Your task to perform on an android device: Clear the cart on amazon.com. Image 0: 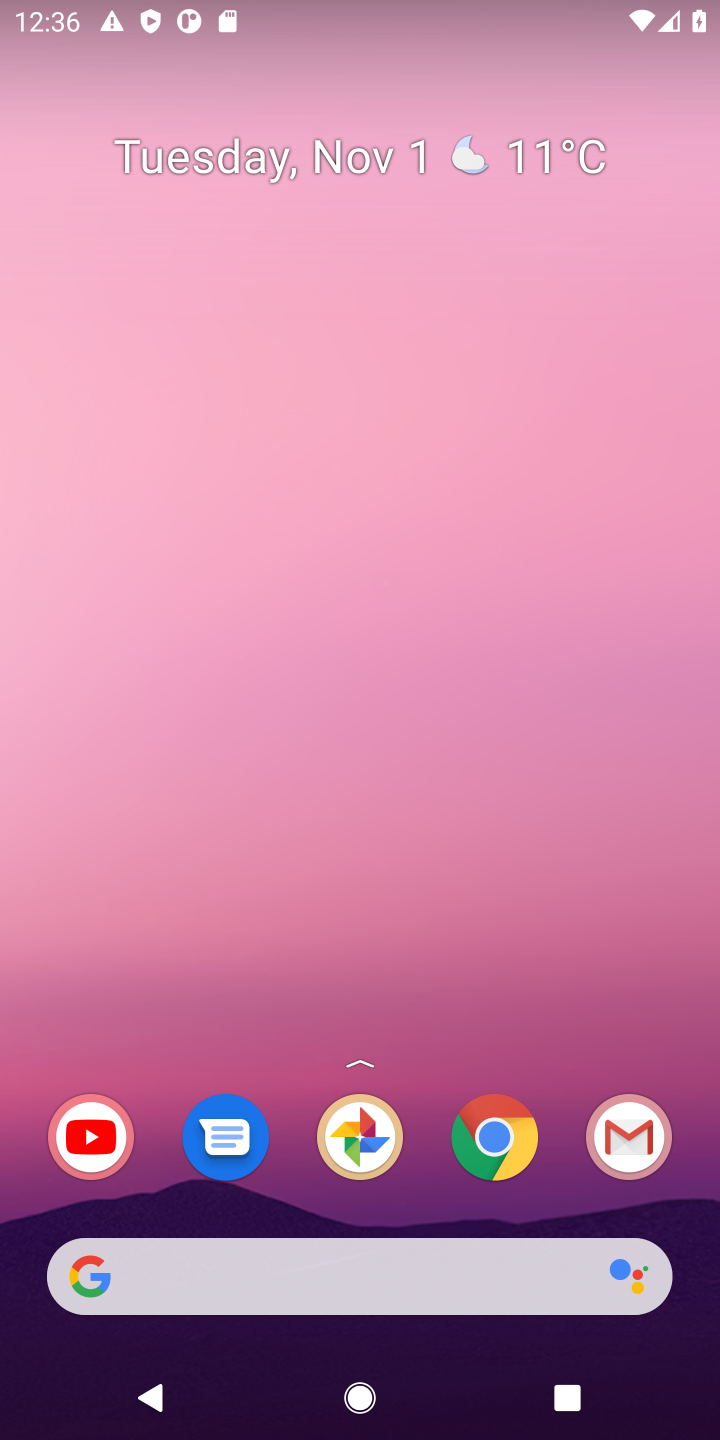
Step 0: click (491, 1151)
Your task to perform on an android device: Clear the cart on amazon.com. Image 1: 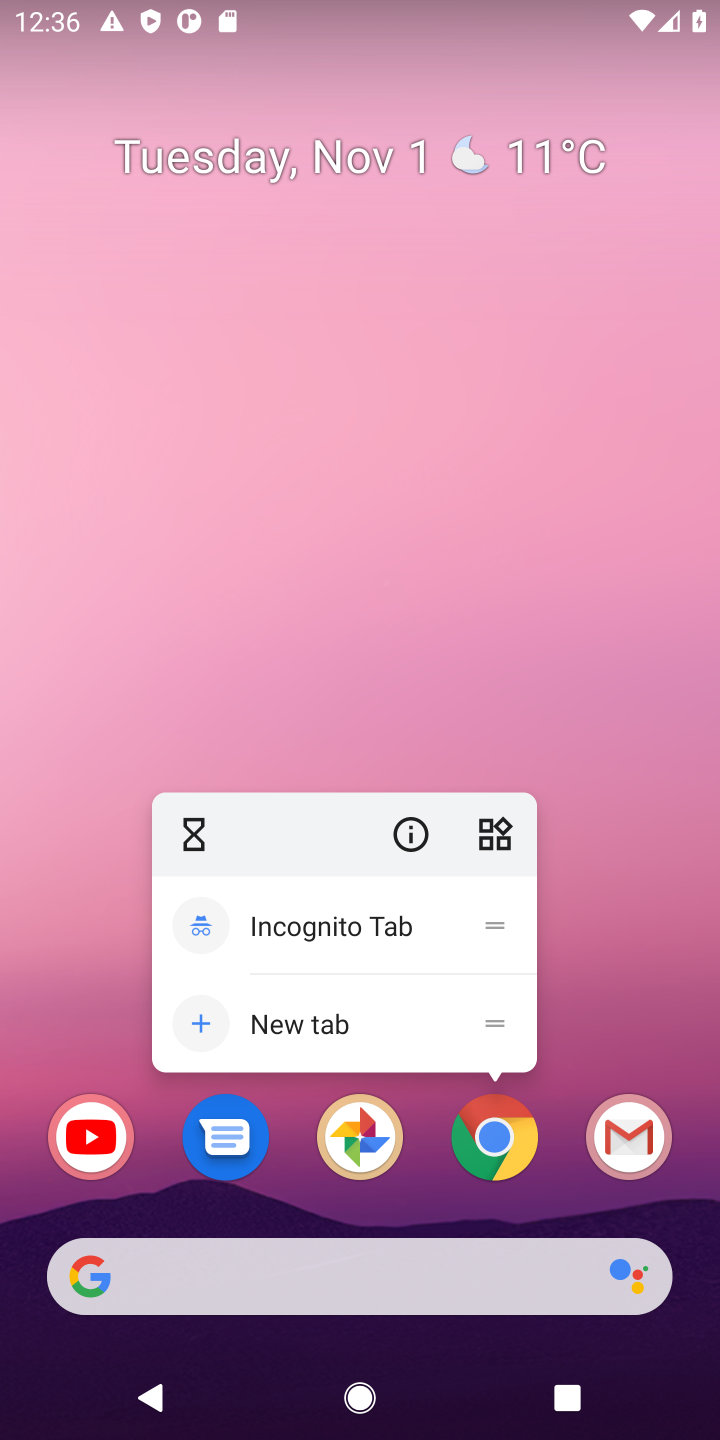
Step 1: click (498, 1120)
Your task to perform on an android device: Clear the cart on amazon.com. Image 2: 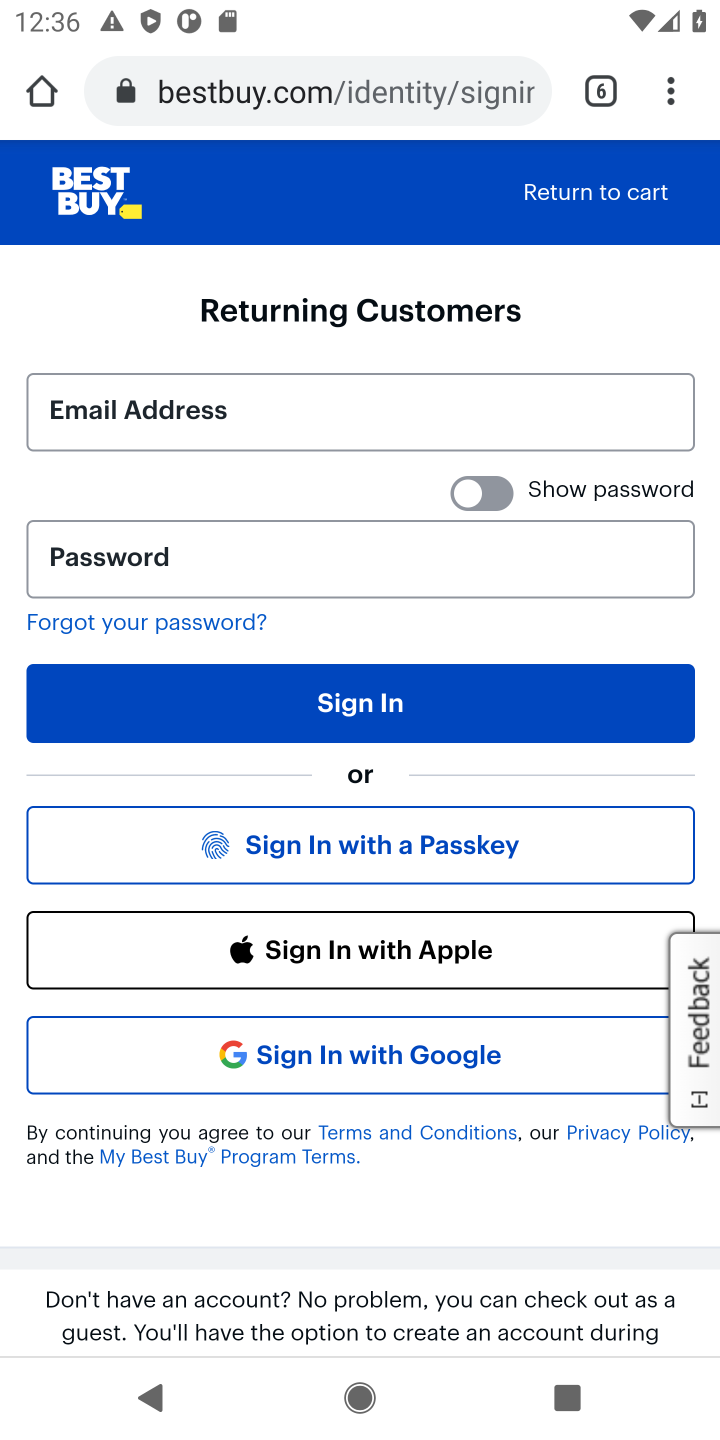
Step 2: click (605, 88)
Your task to perform on an android device: Clear the cart on amazon.com. Image 3: 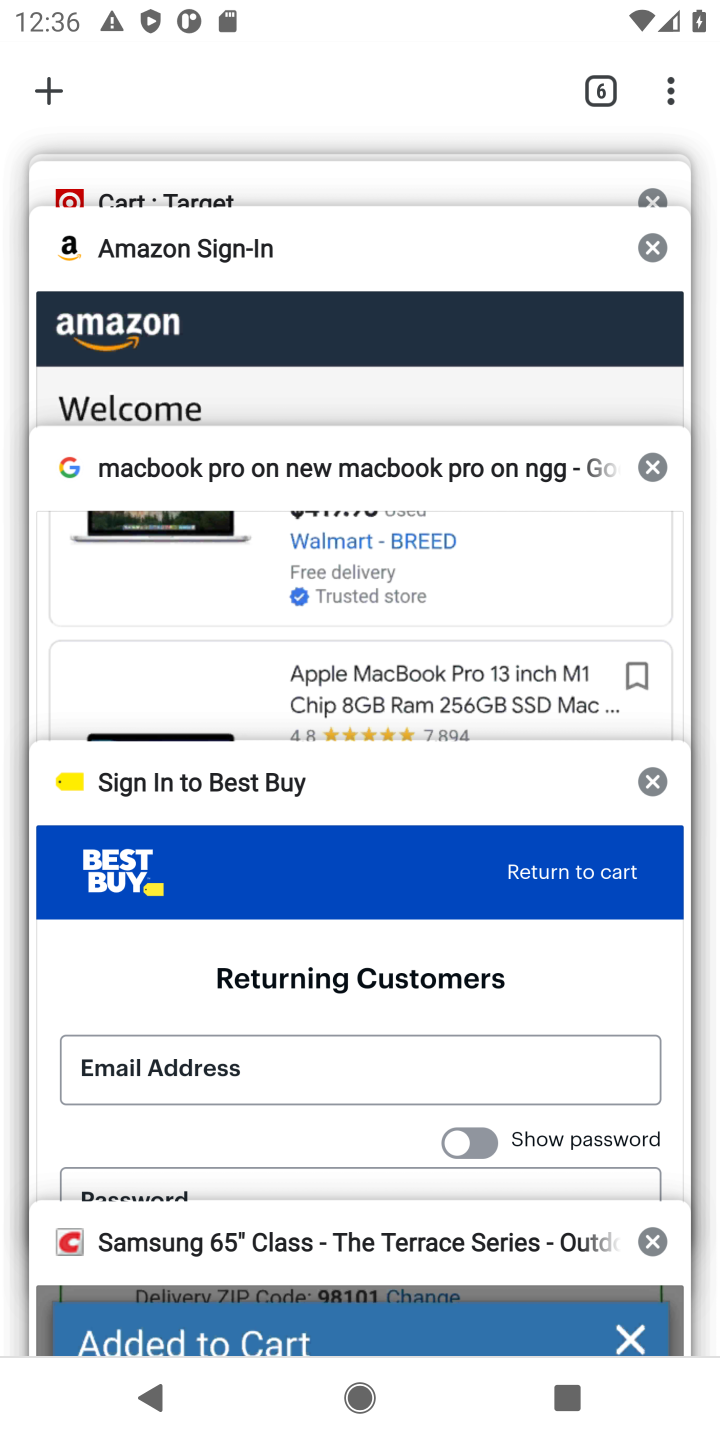
Step 3: click (400, 293)
Your task to perform on an android device: Clear the cart on amazon.com. Image 4: 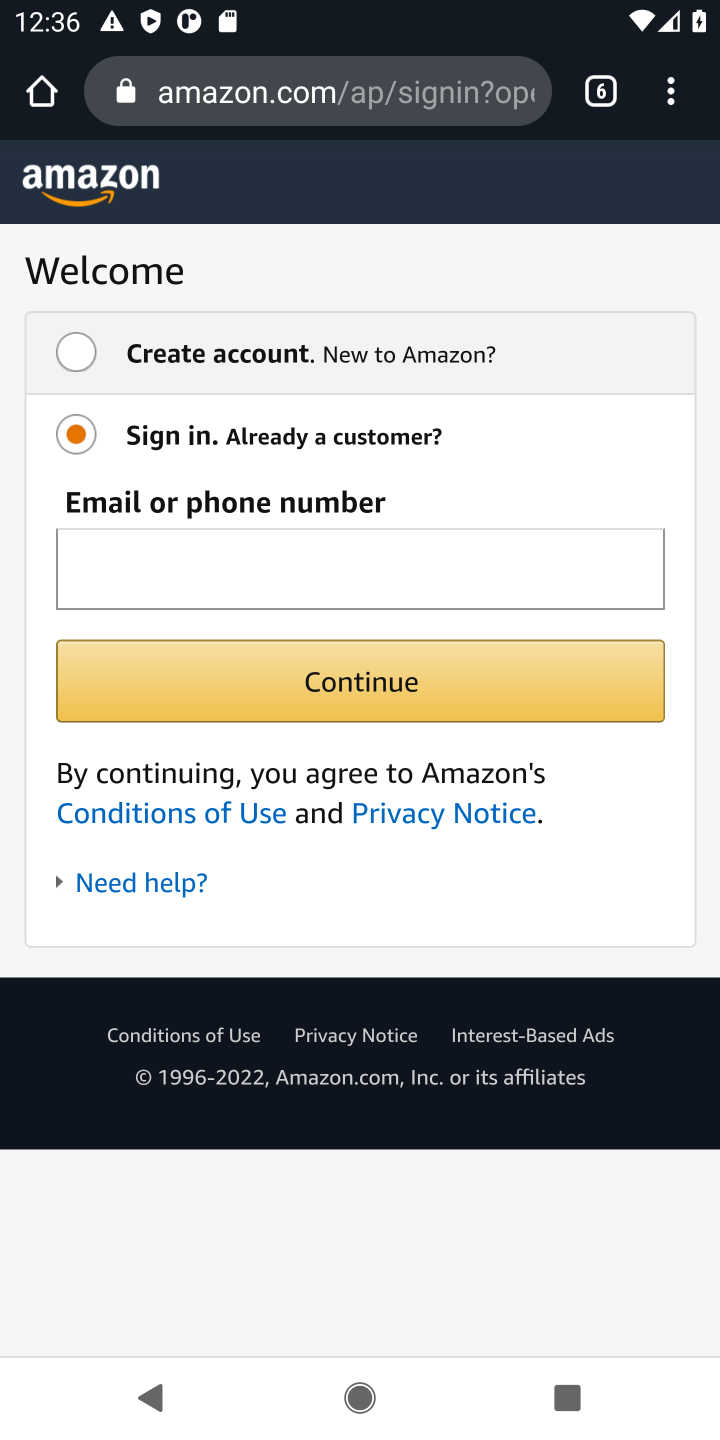
Step 4: press back button
Your task to perform on an android device: Clear the cart on amazon.com. Image 5: 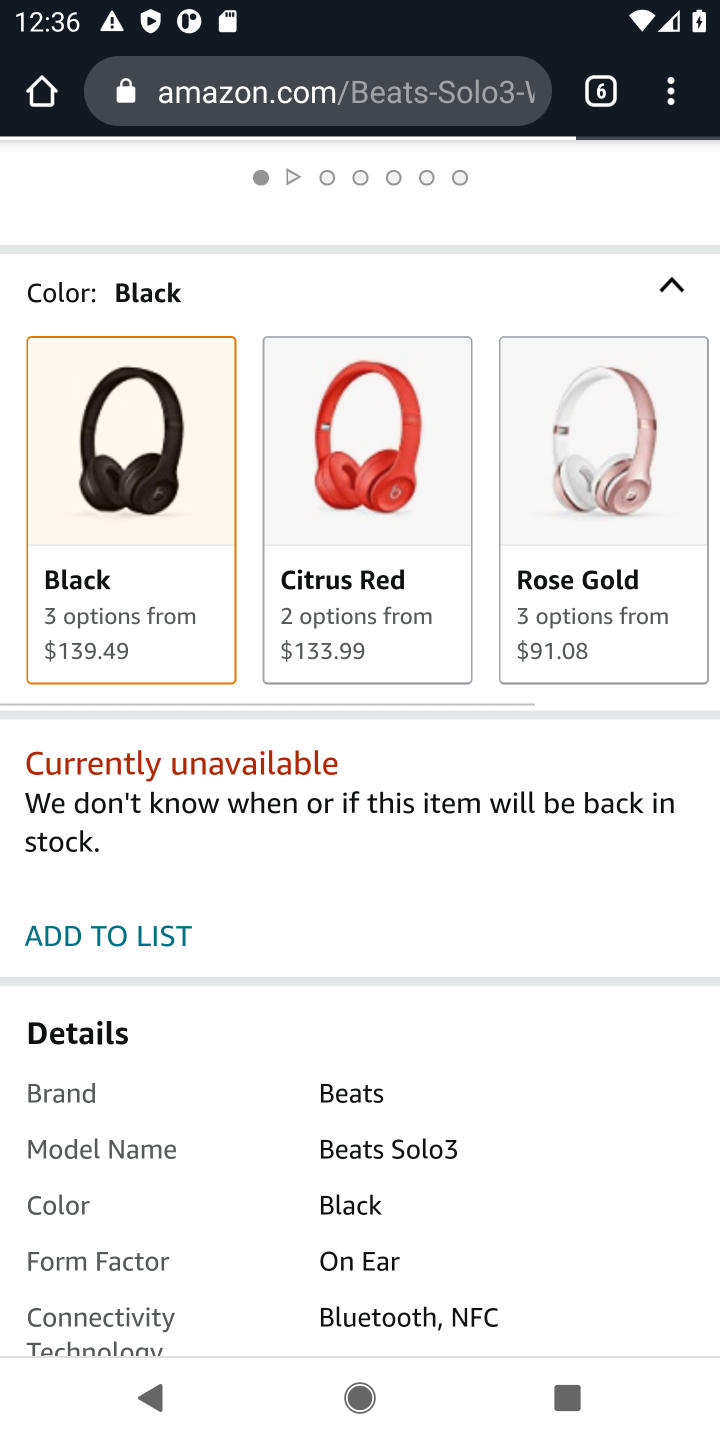
Step 5: click (654, 167)
Your task to perform on an android device: Clear the cart on amazon.com. Image 6: 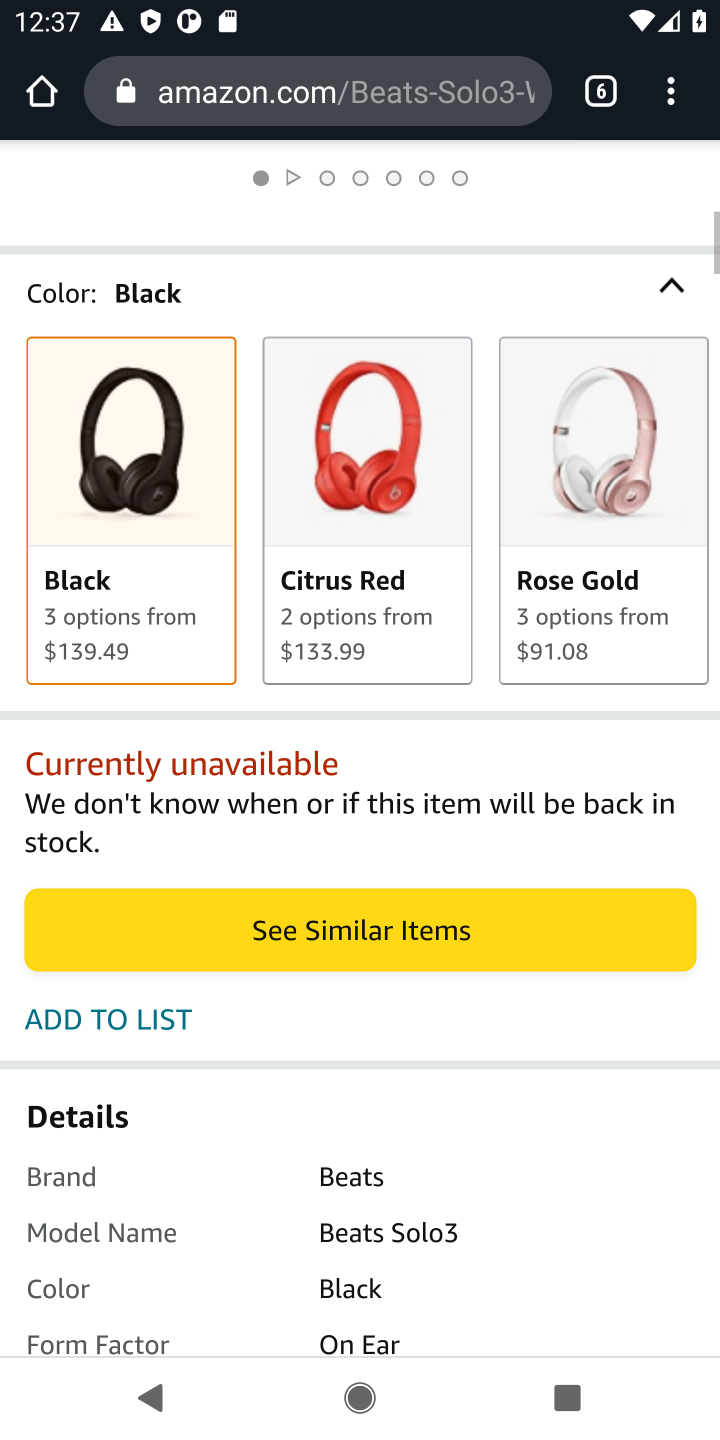
Step 6: drag from (632, 233) to (612, 952)
Your task to perform on an android device: Clear the cart on amazon.com. Image 7: 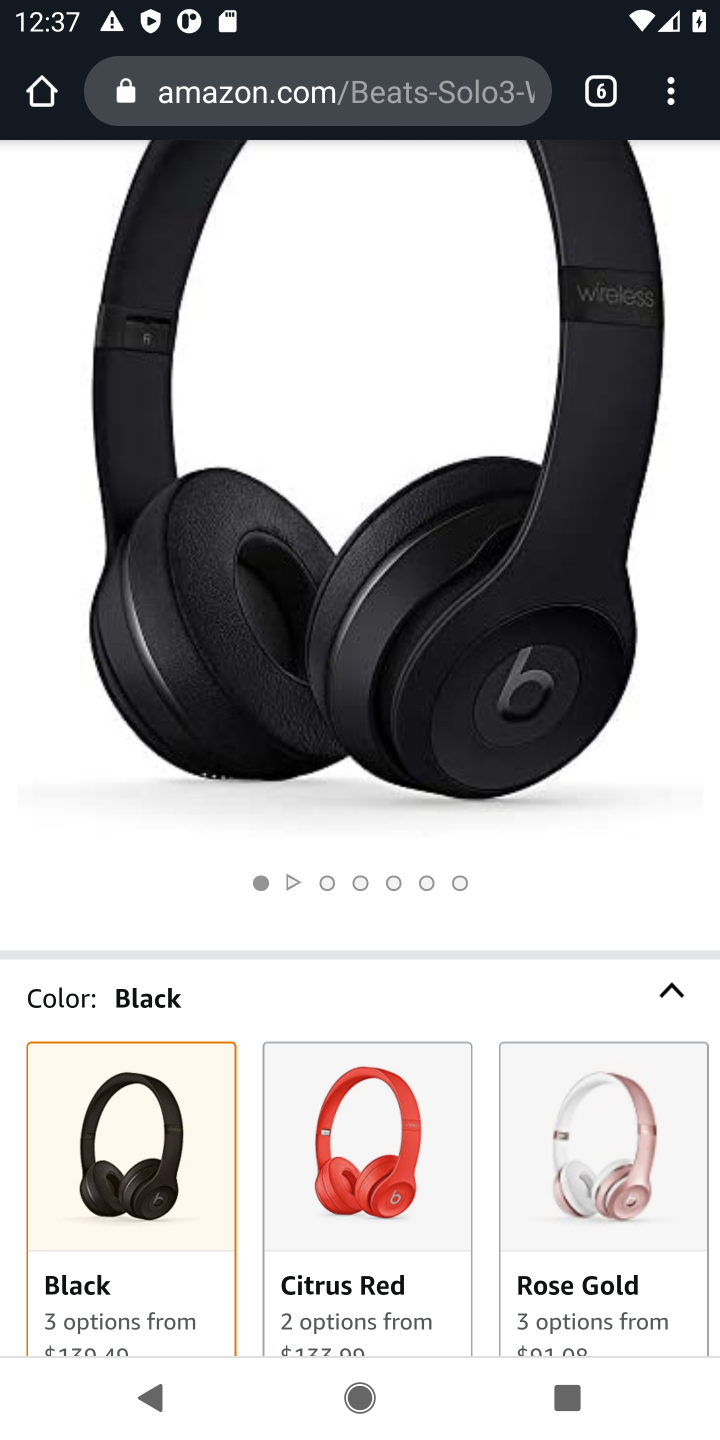
Step 7: drag from (661, 348) to (633, 1424)
Your task to perform on an android device: Clear the cart on amazon.com. Image 8: 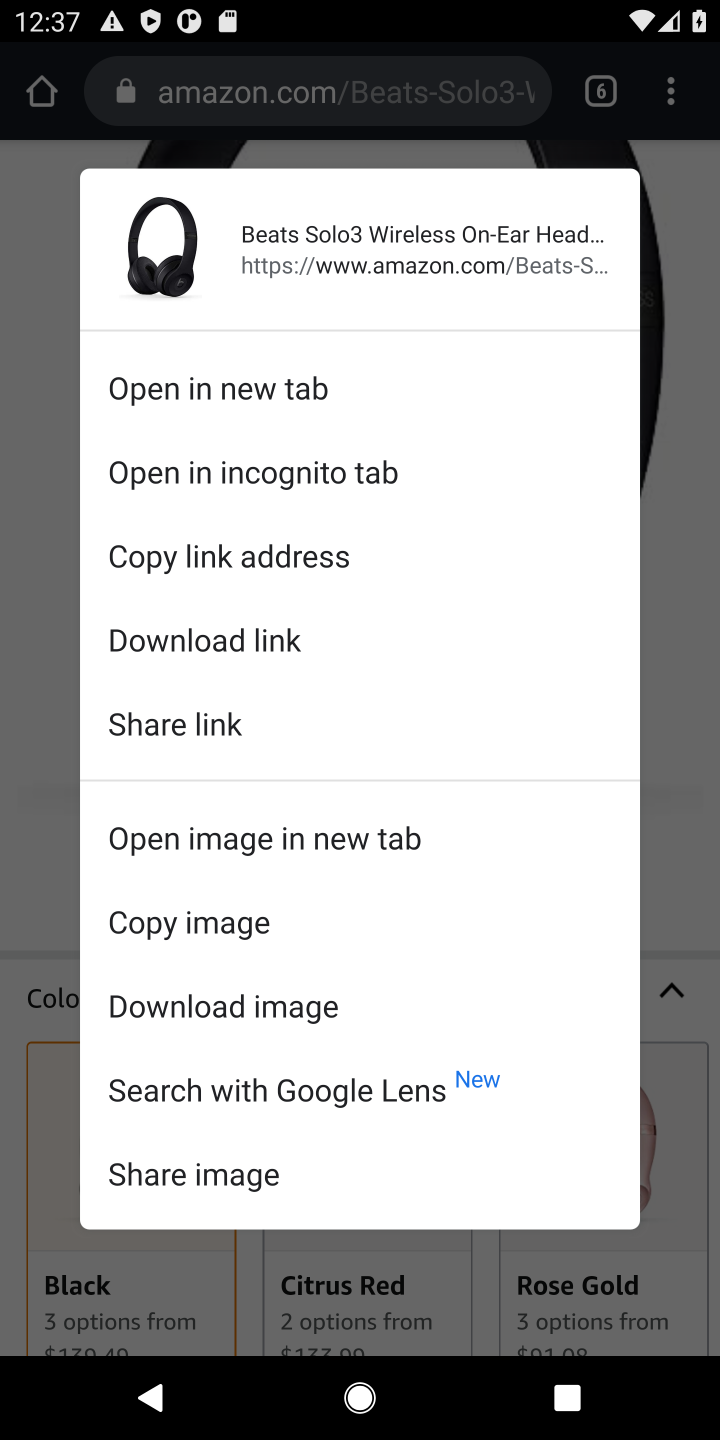
Step 8: click (678, 341)
Your task to perform on an android device: Clear the cart on amazon.com. Image 9: 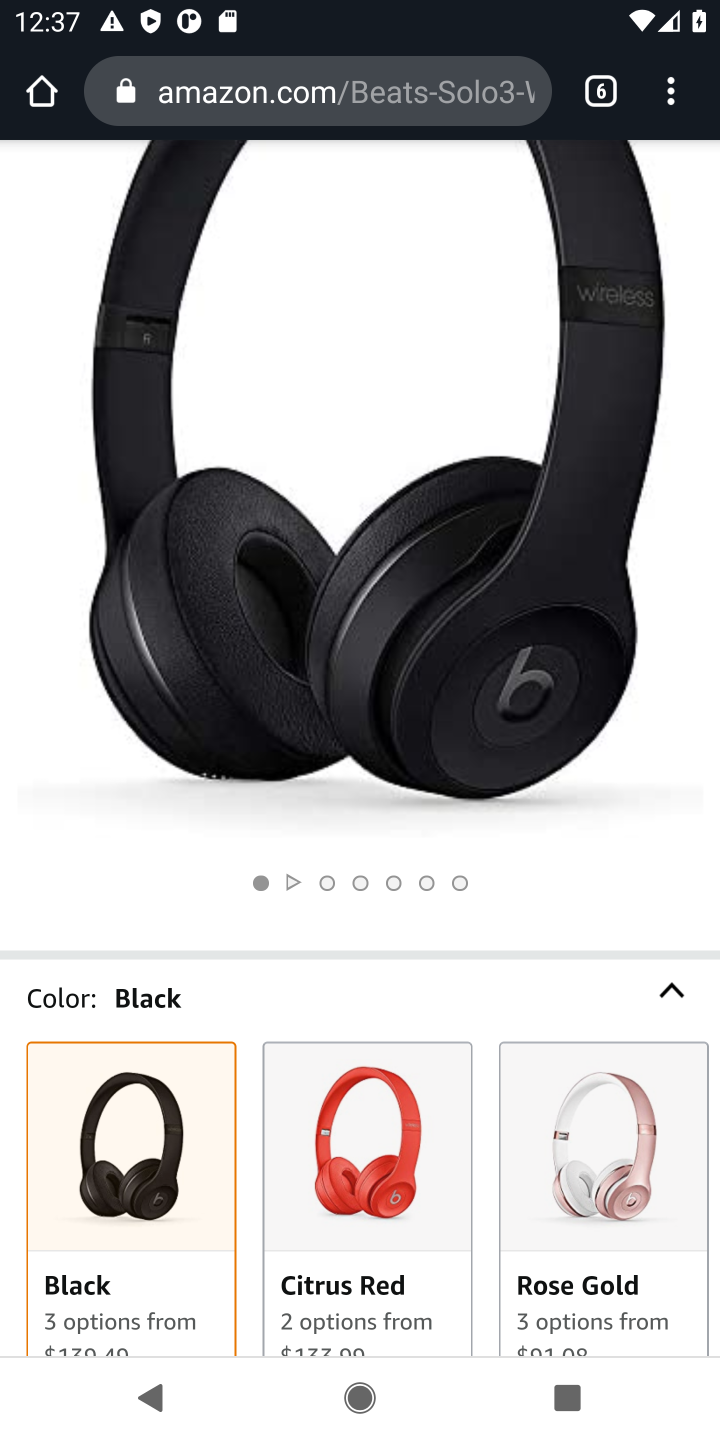
Step 9: drag from (678, 341) to (519, 1428)
Your task to perform on an android device: Clear the cart on amazon.com. Image 10: 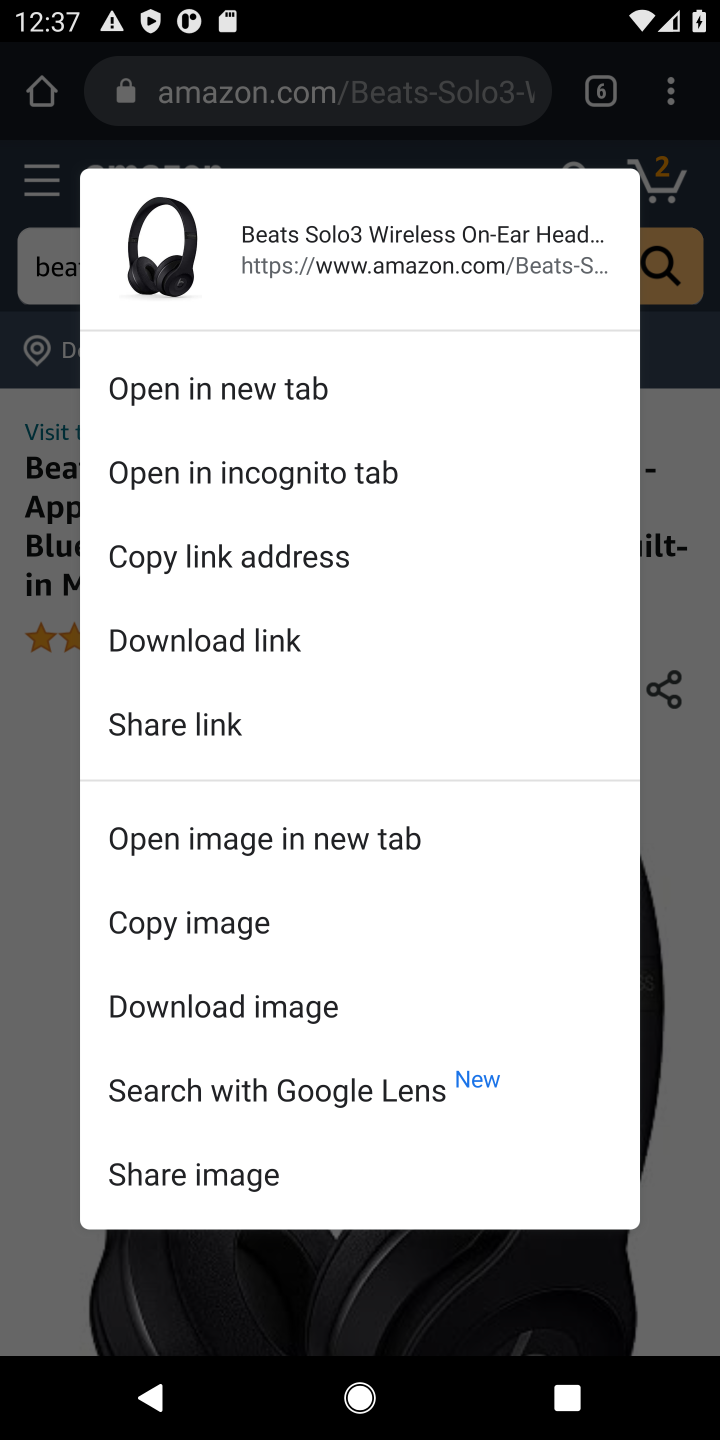
Step 10: click (664, 162)
Your task to perform on an android device: Clear the cart on amazon.com. Image 11: 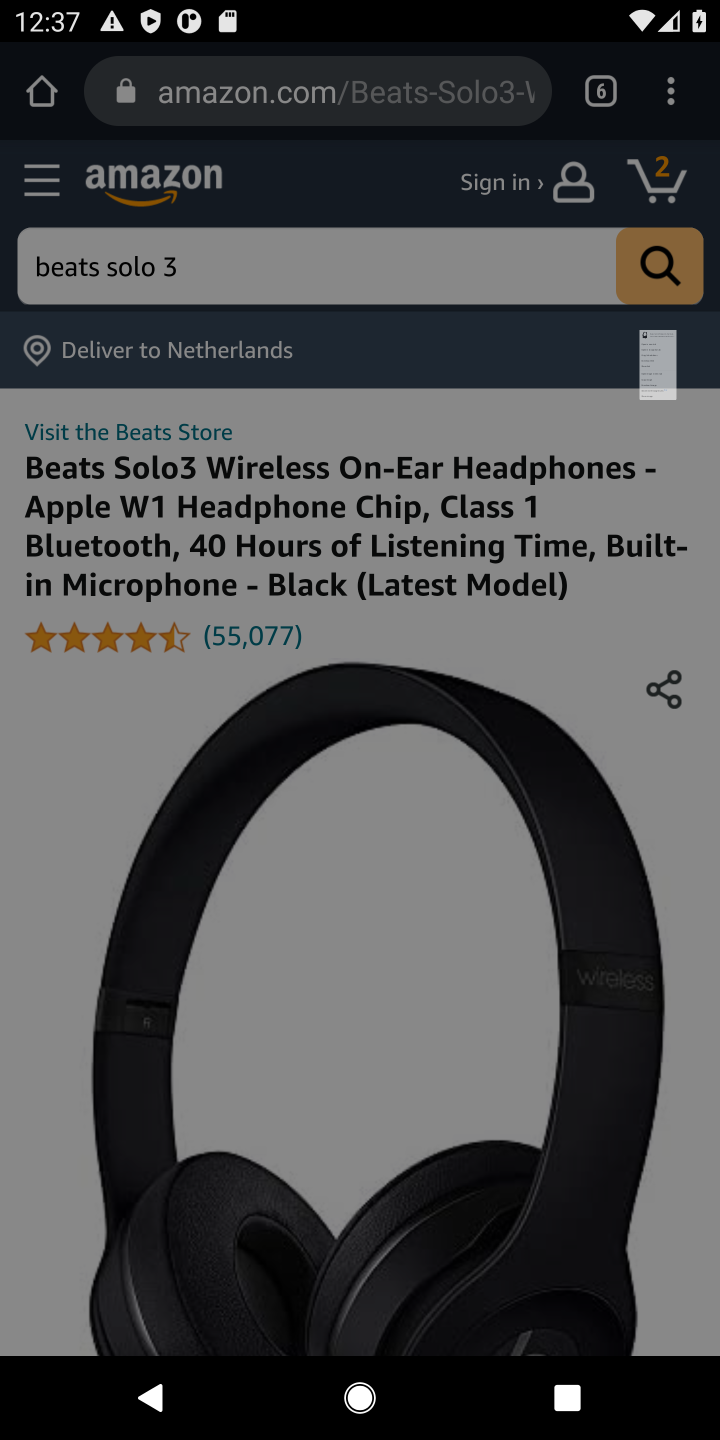
Step 11: click (664, 162)
Your task to perform on an android device: Clear the cart on amazon.com. Image 12: 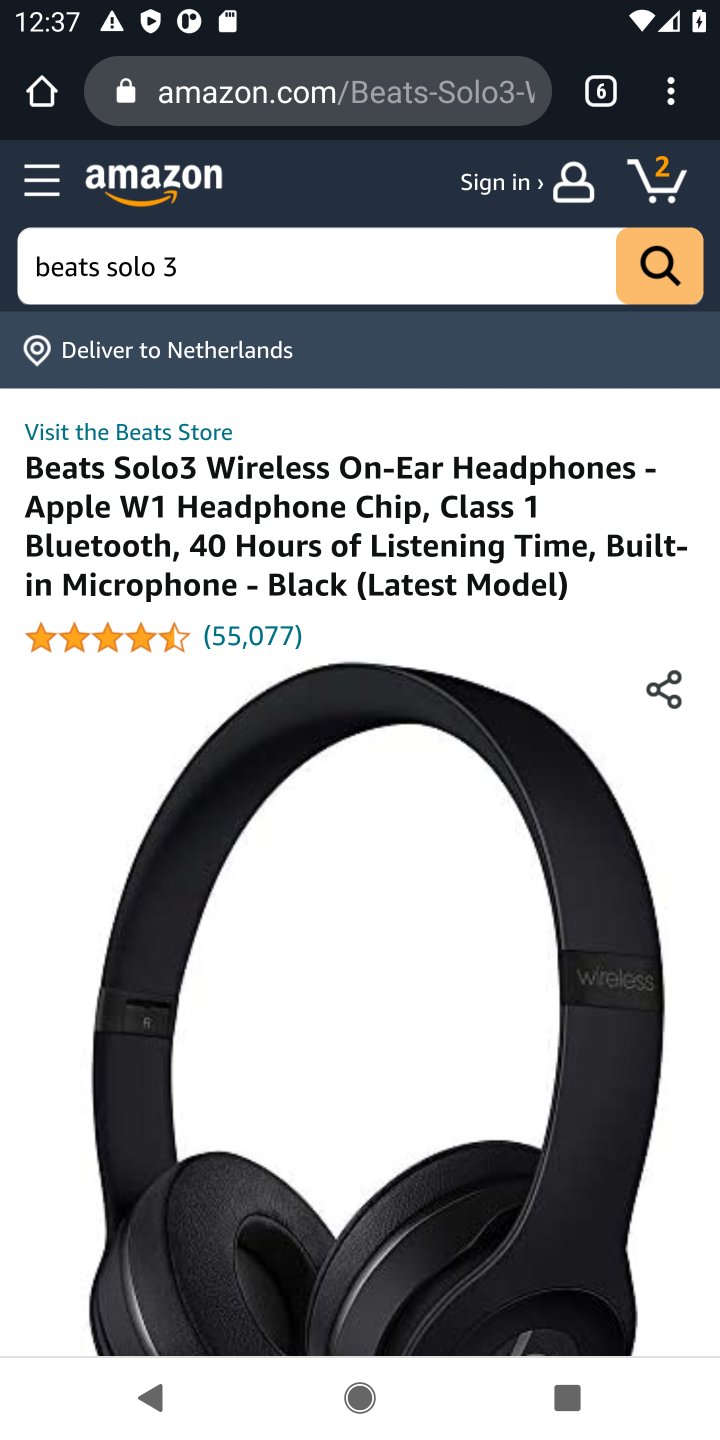
Step 12: click (664, 162)
Your task to perform on an android device: Clear the cart on amazon.com. Image 13: 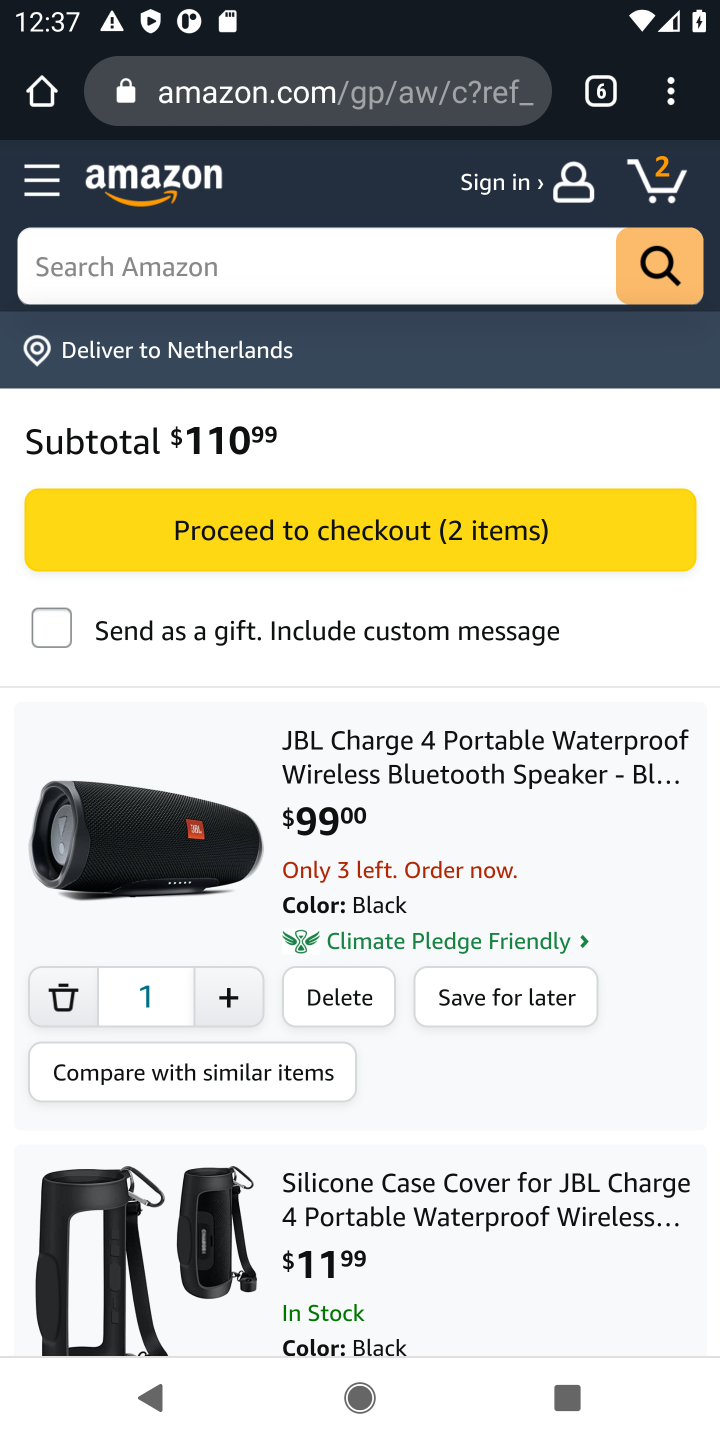
Step 13: click (324, 988)
Your task to perform on an android device: Clear the cart on amazon.com. Image 14: 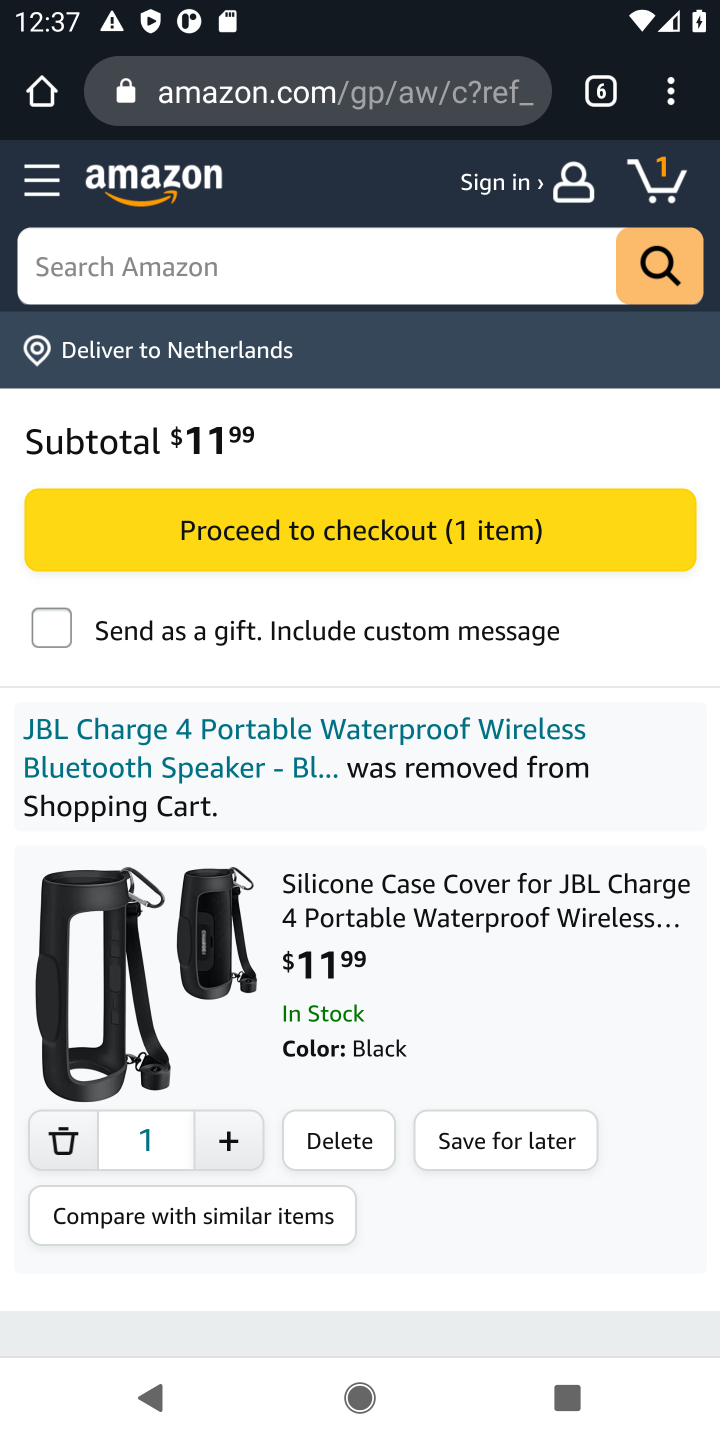
Step 14: click (338, 1135)
Your task to perform on an android device: Clear the cart on amazon.com. Image 15: 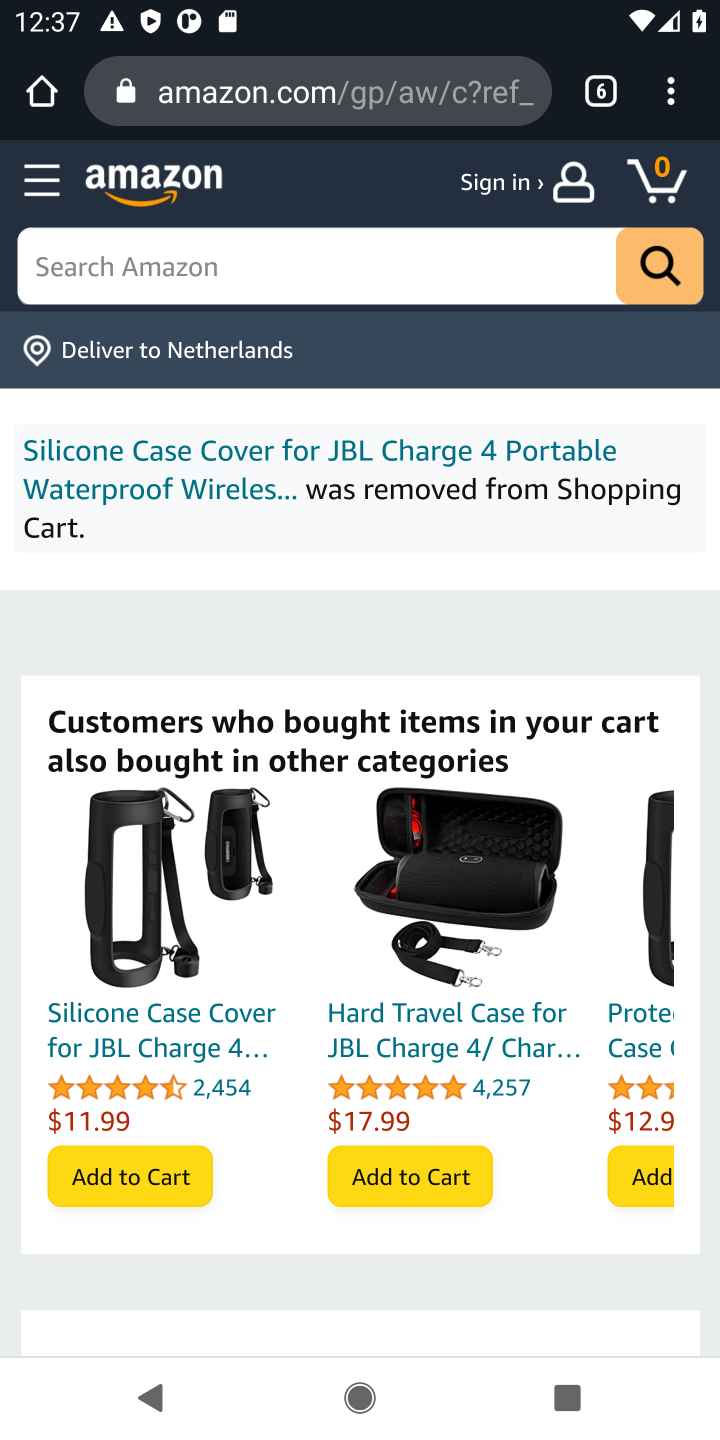
Step 15: task complete